Your task to perform on an android device: Go to Google Image 0: 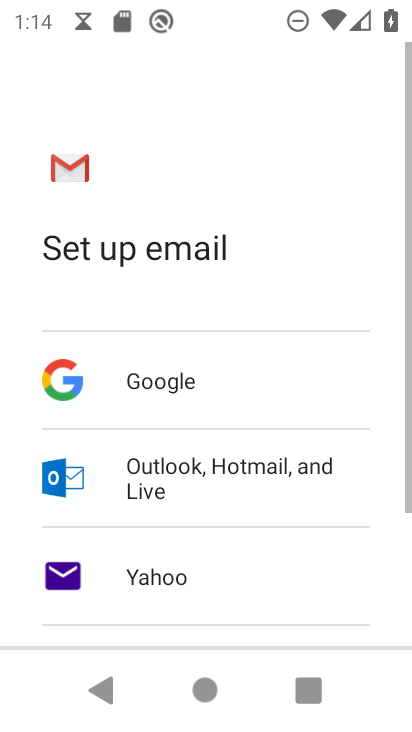
Step 0: press home button
Your task to perform on an android device: Go to Google Image 1: 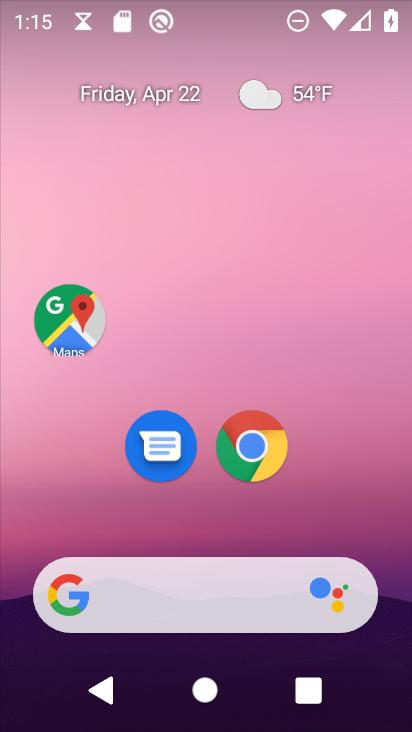
Step 1: drag from (336, 529) to (293, 217)
Your task to perform on an android device: Go to Google Image 2: 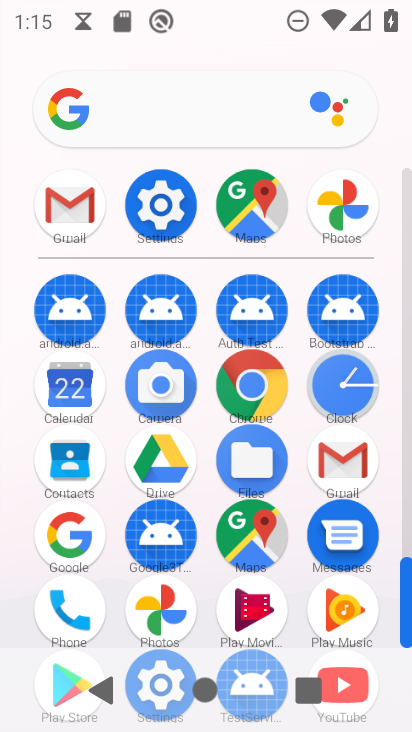
Step 2: click (82, 532)
Your task to perform on an android device: Go to Google Image 3: 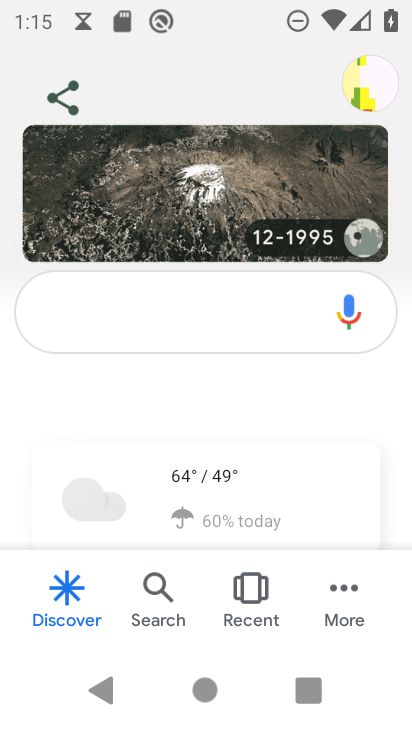
Step 3: task complete